Your task to perform on an android device: turn off location Image 0: 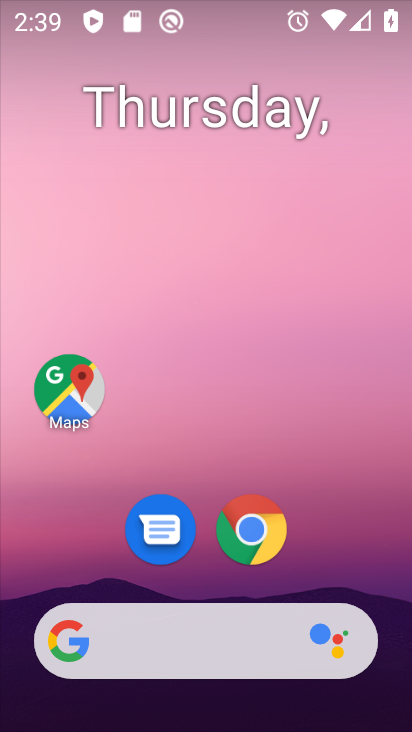
Step 0: drag from (239, 715) to (239, 6)
Your task to perform on an android device: turn off location Image 1: 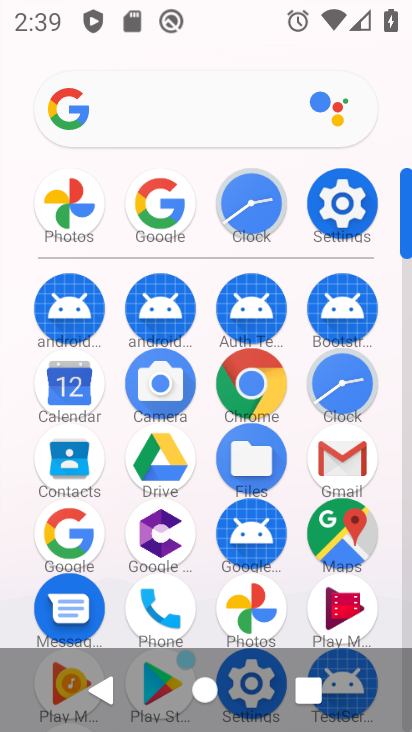
Step 1: click (339, 172)
Your task to perform on an android device: turn off location Image 2: 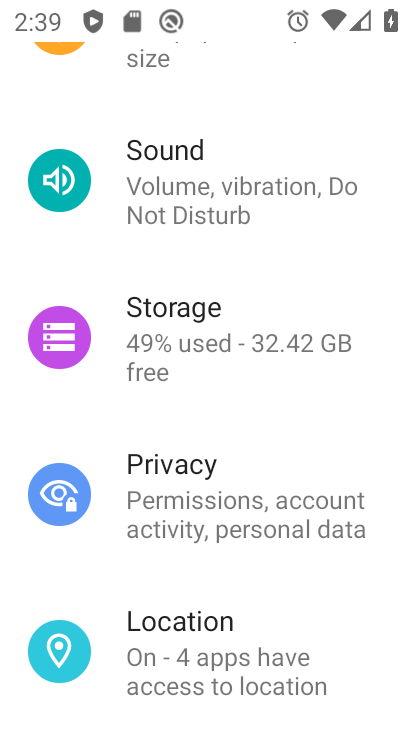
Step 2: click (236, 673)
Your task to perform on an android device: turn off location Image 3: 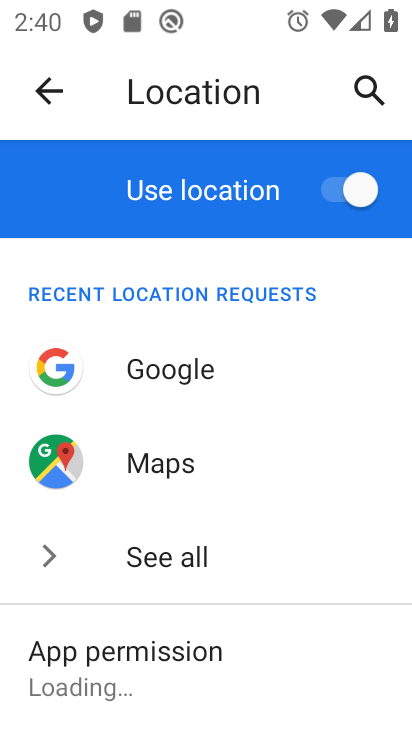
Step 3: click (355, 190)
Your task to perform on an android device: turn off location Image 4: 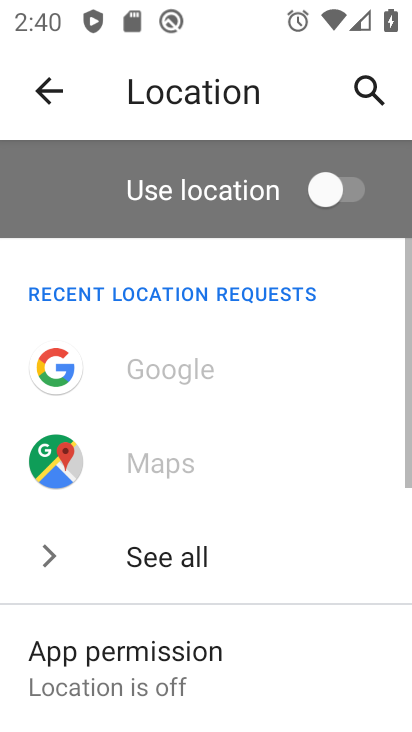
Step 4: task complete